Your task to perform on an android device: Open Android settings Image 0: 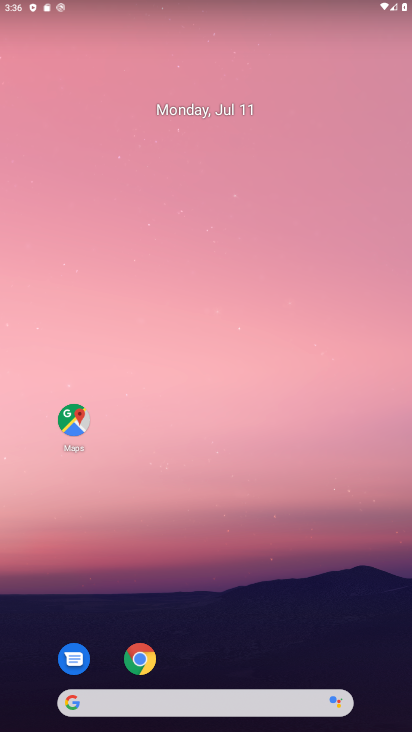
Step 0: drag from (211, 697) to (272, 197)
Your task to perform on an android device: Open Android settings Image 1: 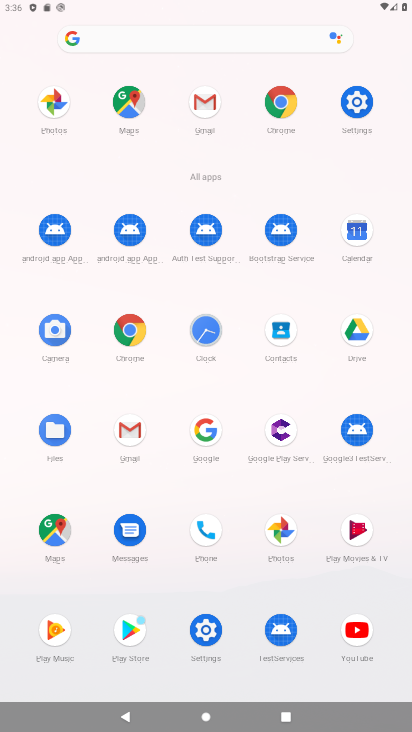
Step 1: click (199, 629)
Your task to perform on an android device: Open Android settings Image 2: 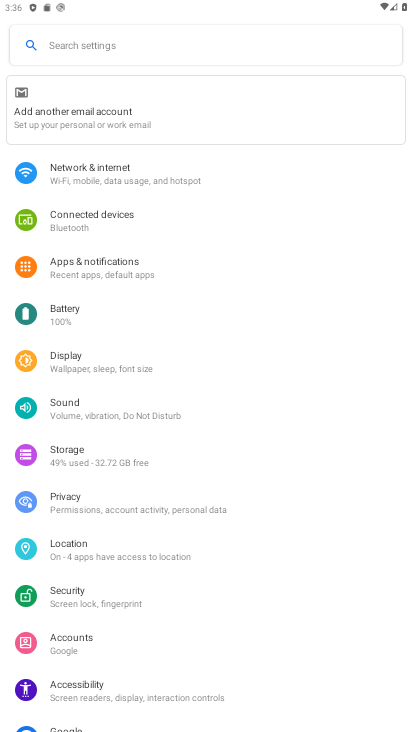
Step 2: task complete